Your task to perform on an android device: What's the news in the Bahamas? Image 0: 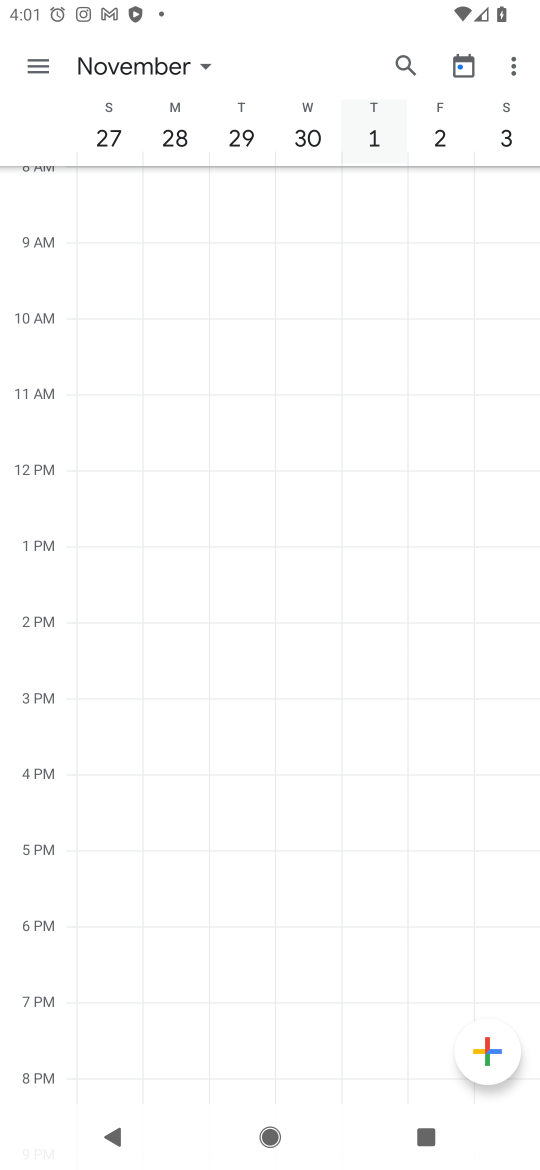
Step 0: press home button
Your task to perform on an android device: What's the news in the Bahamas? Image 1: 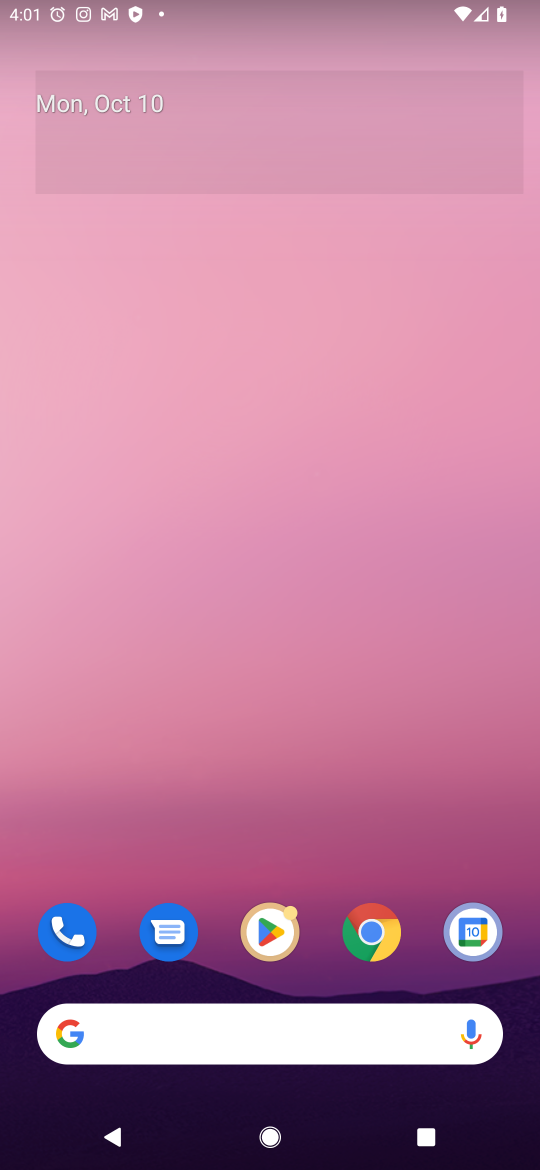
Step 1: click (279, 1043)
Your task to perform on an android device: What's the news in the Bahamas? Image 2: 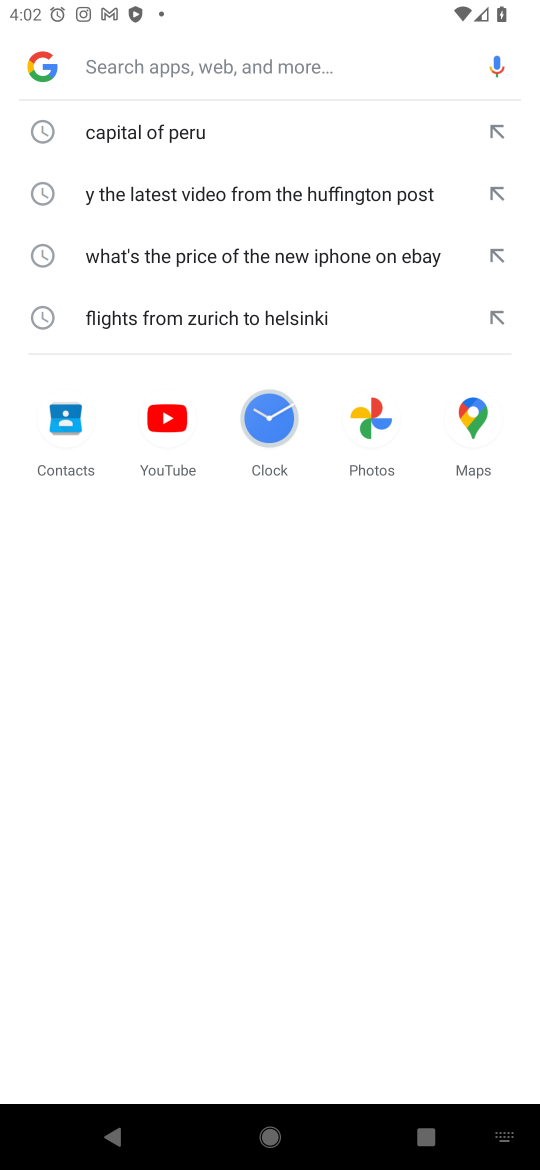
Step 2: type "What's the news in the Bahamas"
Your task to perform on an android device: What's the news in the Bahamas? Image 3: 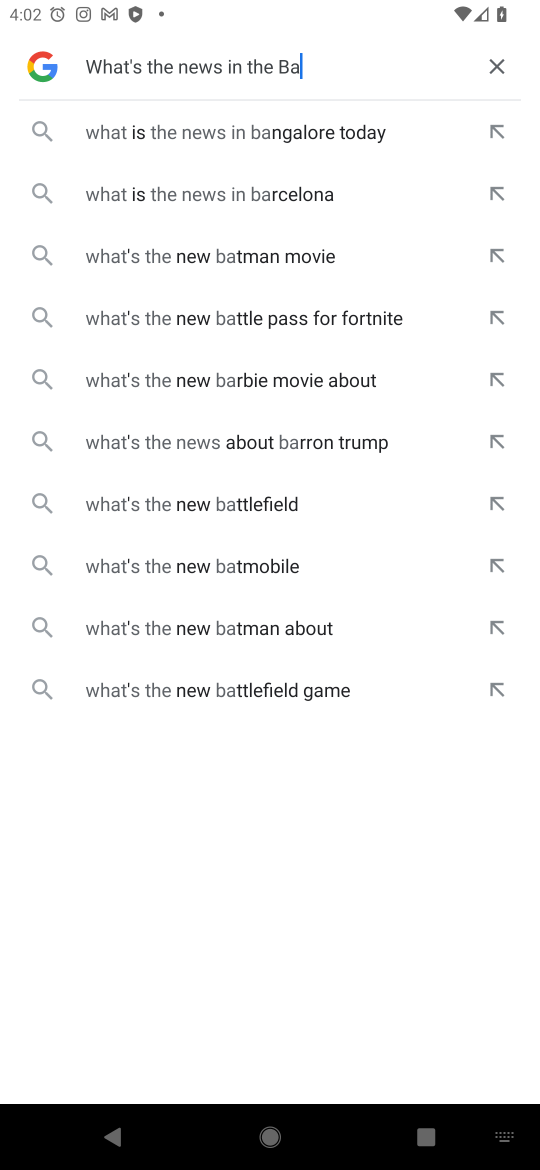
Step 3: press enter
Your task to perform on an android device: What's the news in the Bahamas? Image 4: 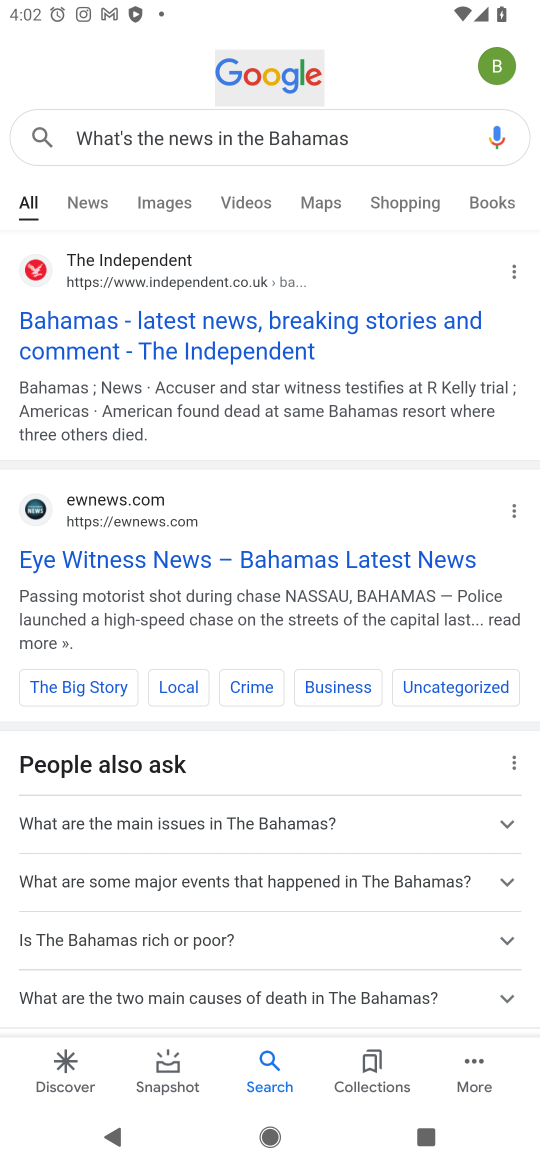
Step 4: click (268, 327)
Your task to perform on an android device: What's the news in the Bahamas? Image 5: 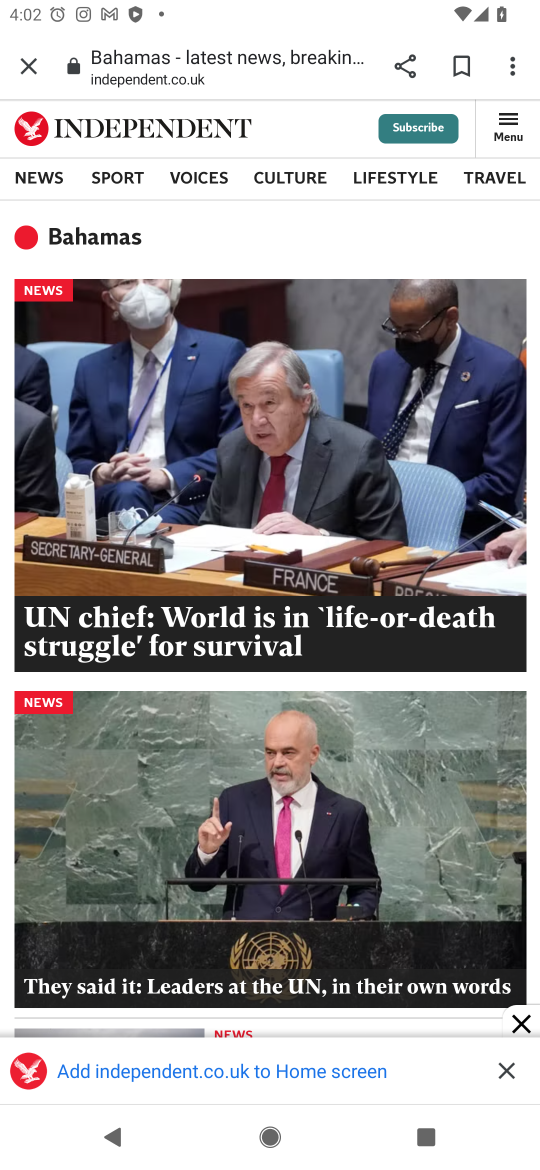
Step 5: task complete